Your task to perform on an android device: turn off javascript in the chrome app Image 0: 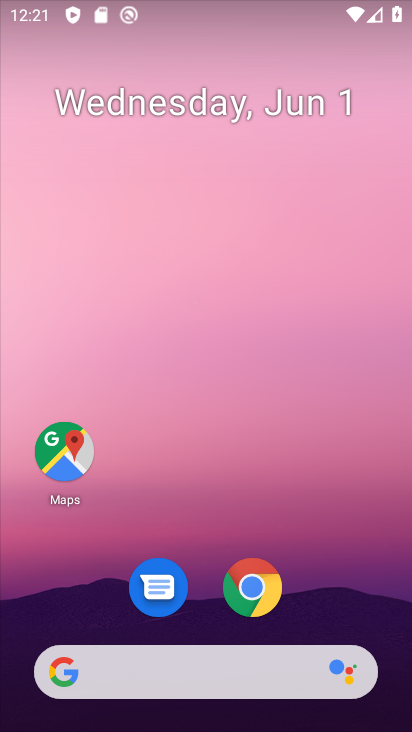
Step 0: click (253, 585)
Your task to perform on an android device: turn off javascript in the chrome app Image 1: 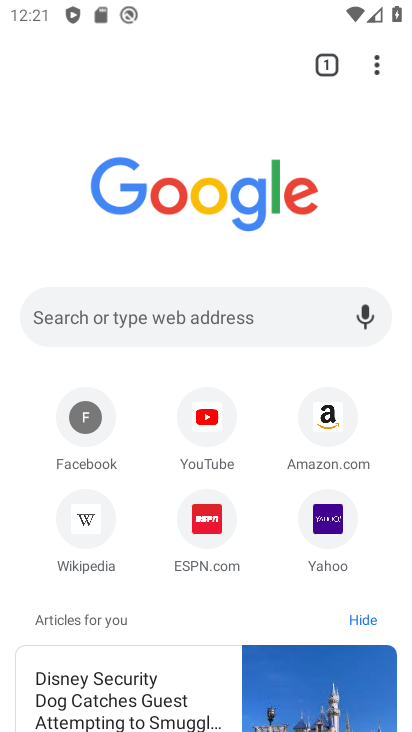
Step 1: click (375, 62)
Your task to perform on an android device: turn off javascript in the chrome app Image 2: 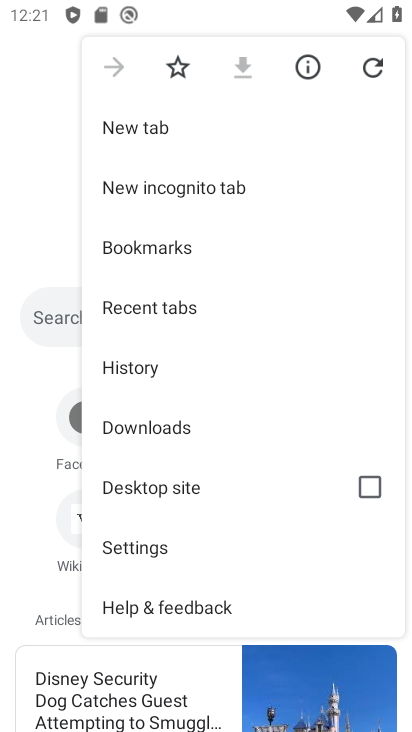
Step 2: click (147, 546)
Your task to perform on an android device: turn off javascript in the chrome app Image 3: 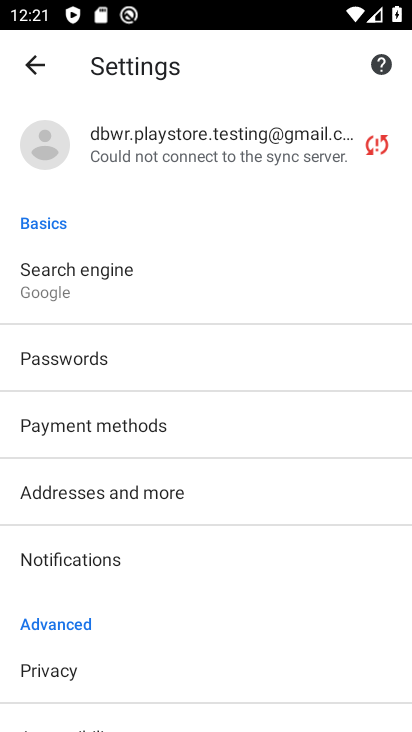
Step 3: drag from (190, 587) to (148, 292)
Your task to perform on an android device: turn off javascript in the chrome app Image 4: 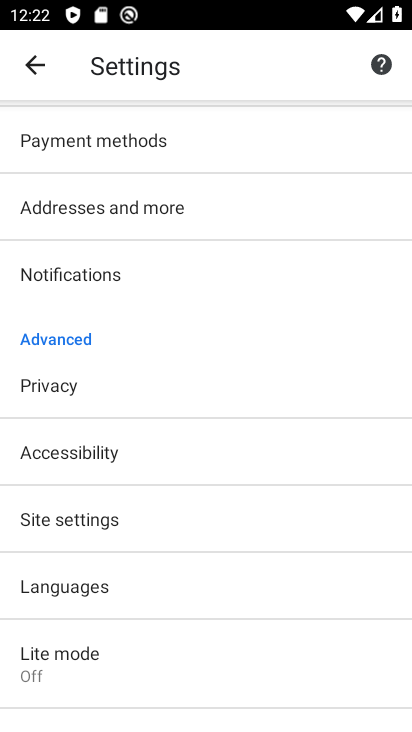
Step 4: click (71, 523)
Your task to perform on an android device: turn off javascript in the chrome app Image 5: 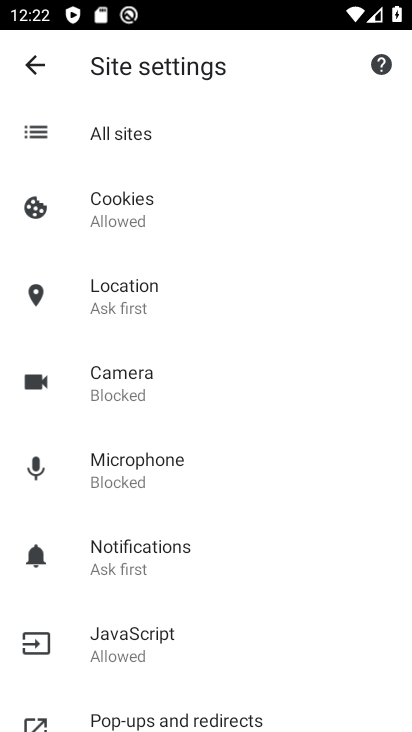
Step 5: click (133, 632)
Your task to perform on an android device: turn off javascript in the chrome app Image 6: 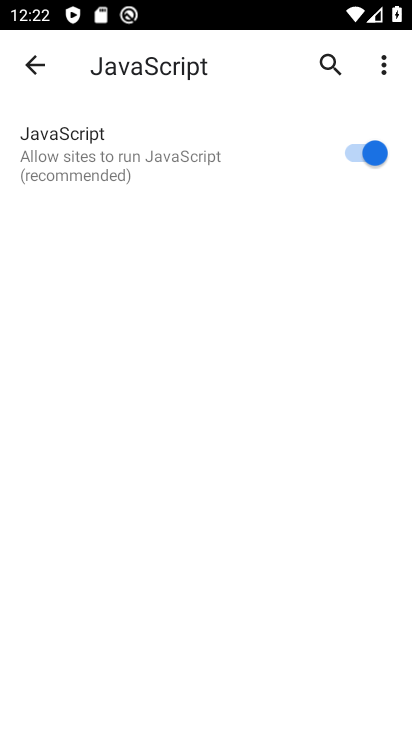
Step 6: click (356, 153)
Your task to perform on an android device: turn off javascript in the chrome app Image 7: 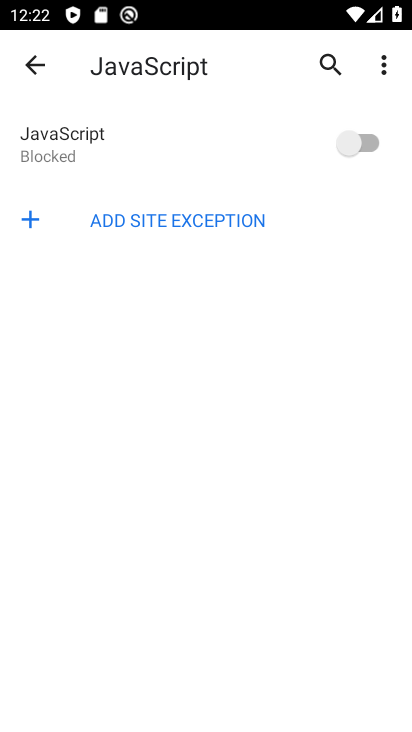
Step 7: task complete